Your task to perform on an android device: What's on Reddit today Image 0: 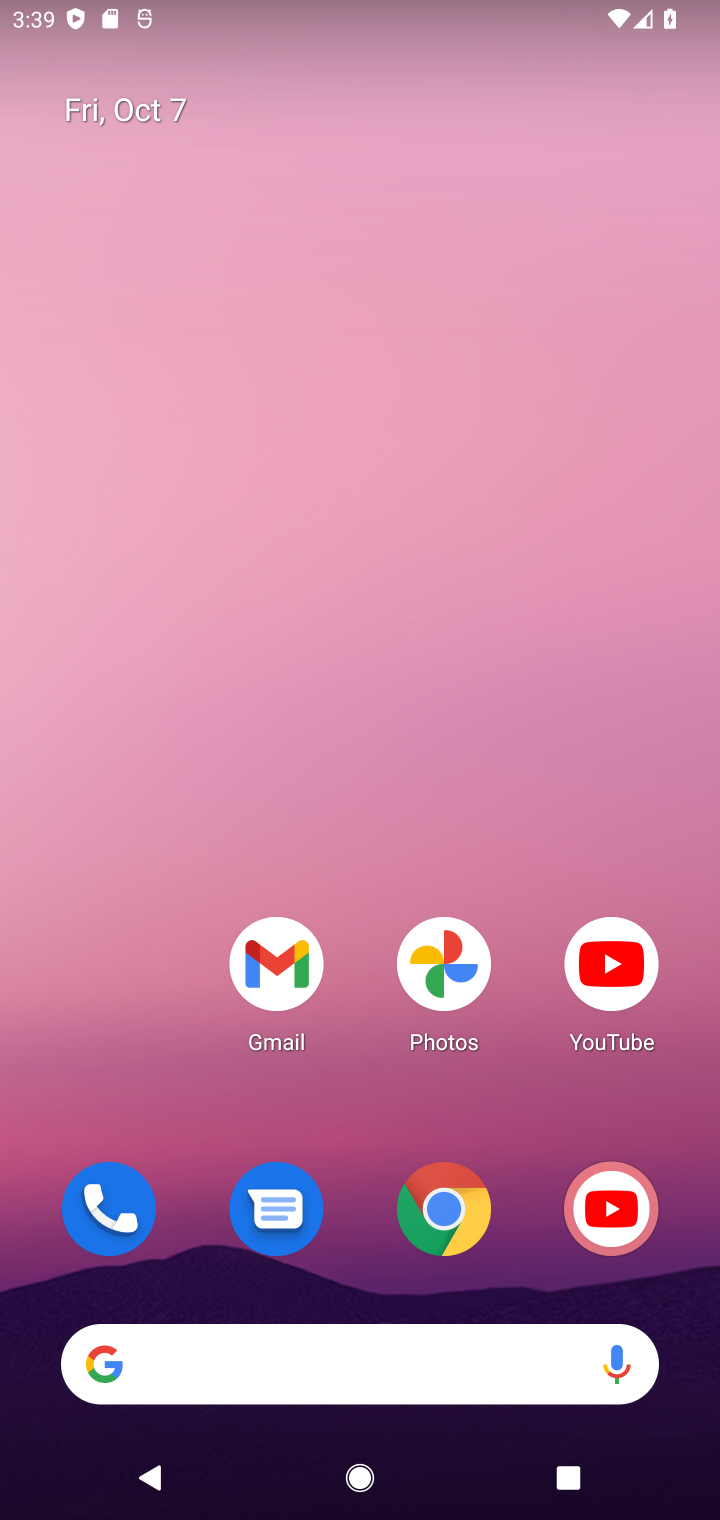
Step 0: press home button
Your task to perform on an android device: What's on Reddit today Image 1: 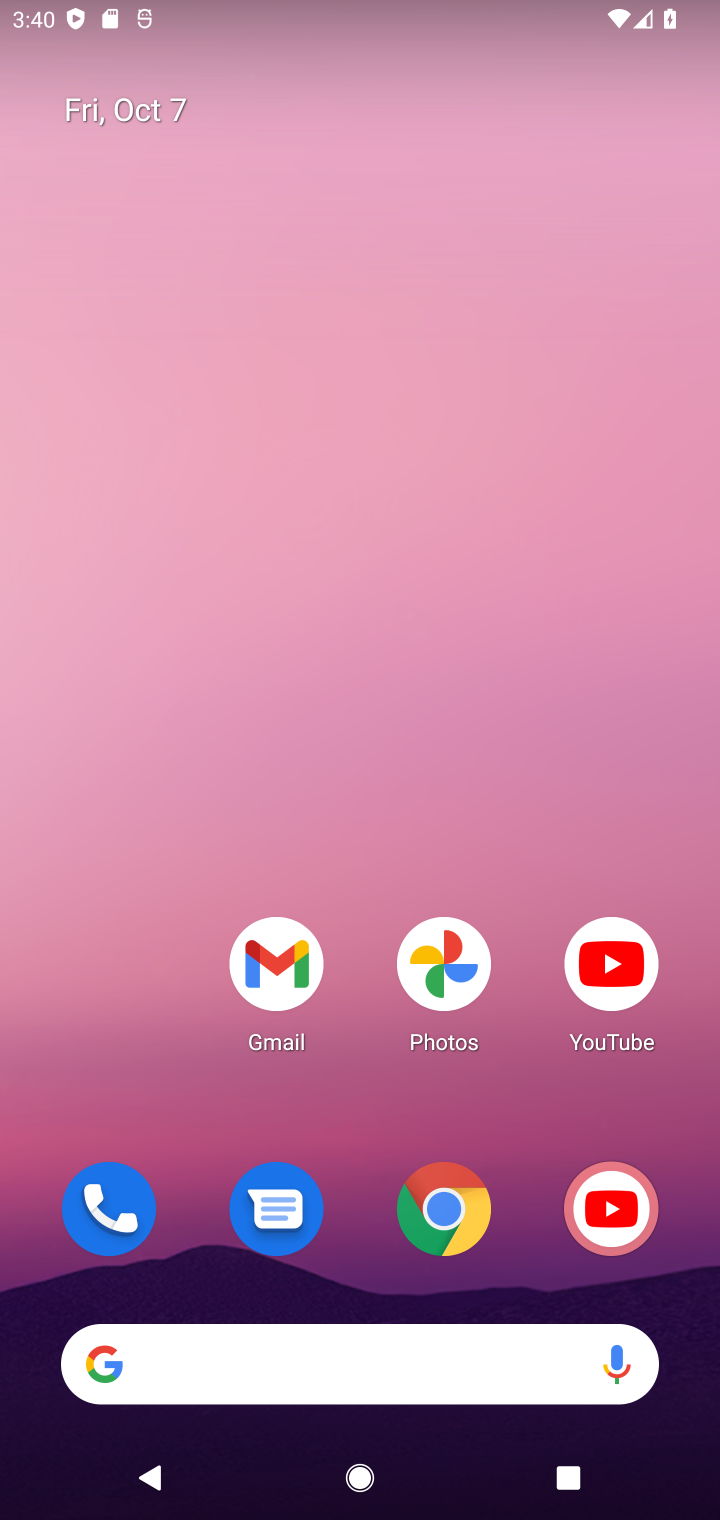
Step 1: click (481, 1356)
Your task to perform on an android device: What's on Reddit today Image 2: 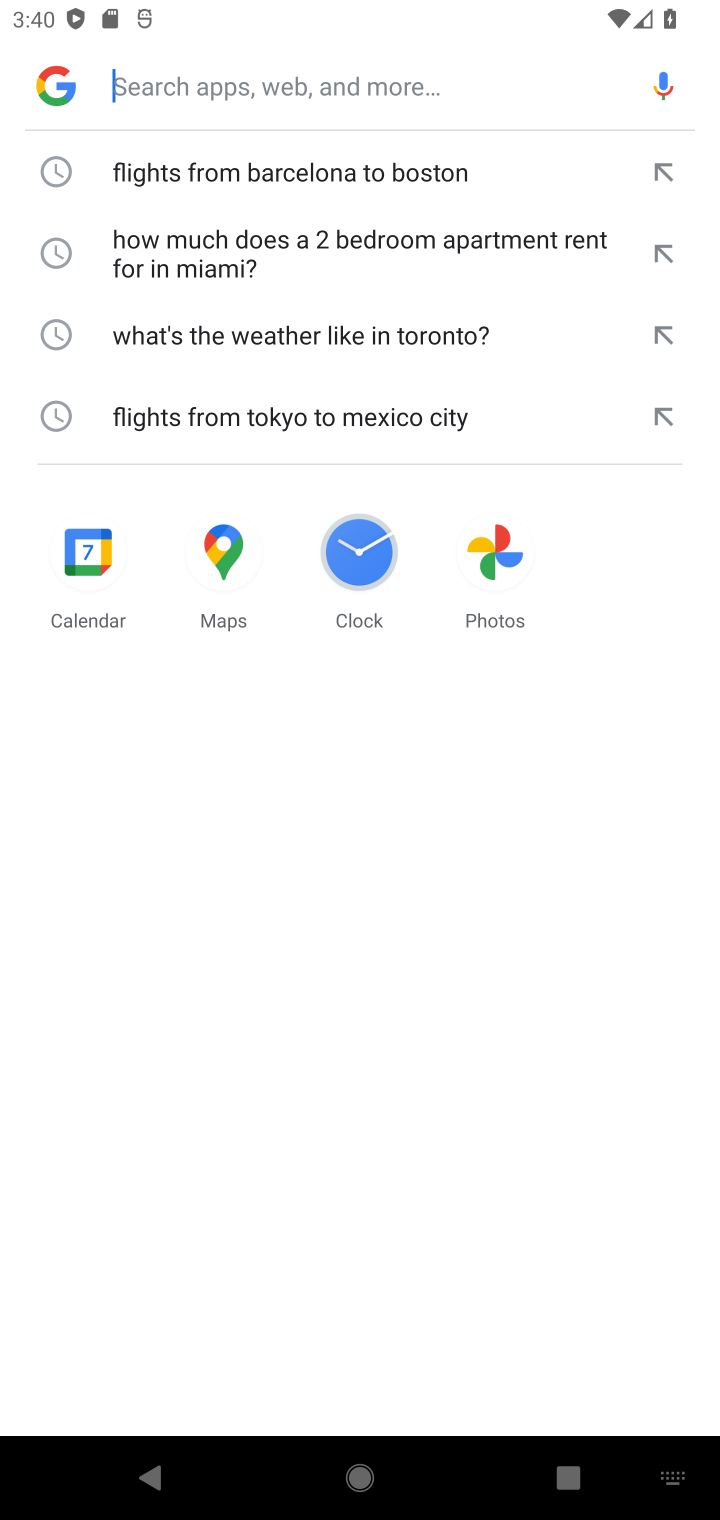
Step 2: type "What's on Reddit today"
Your task to perform on an android device: What's on Reddit today Image 3: 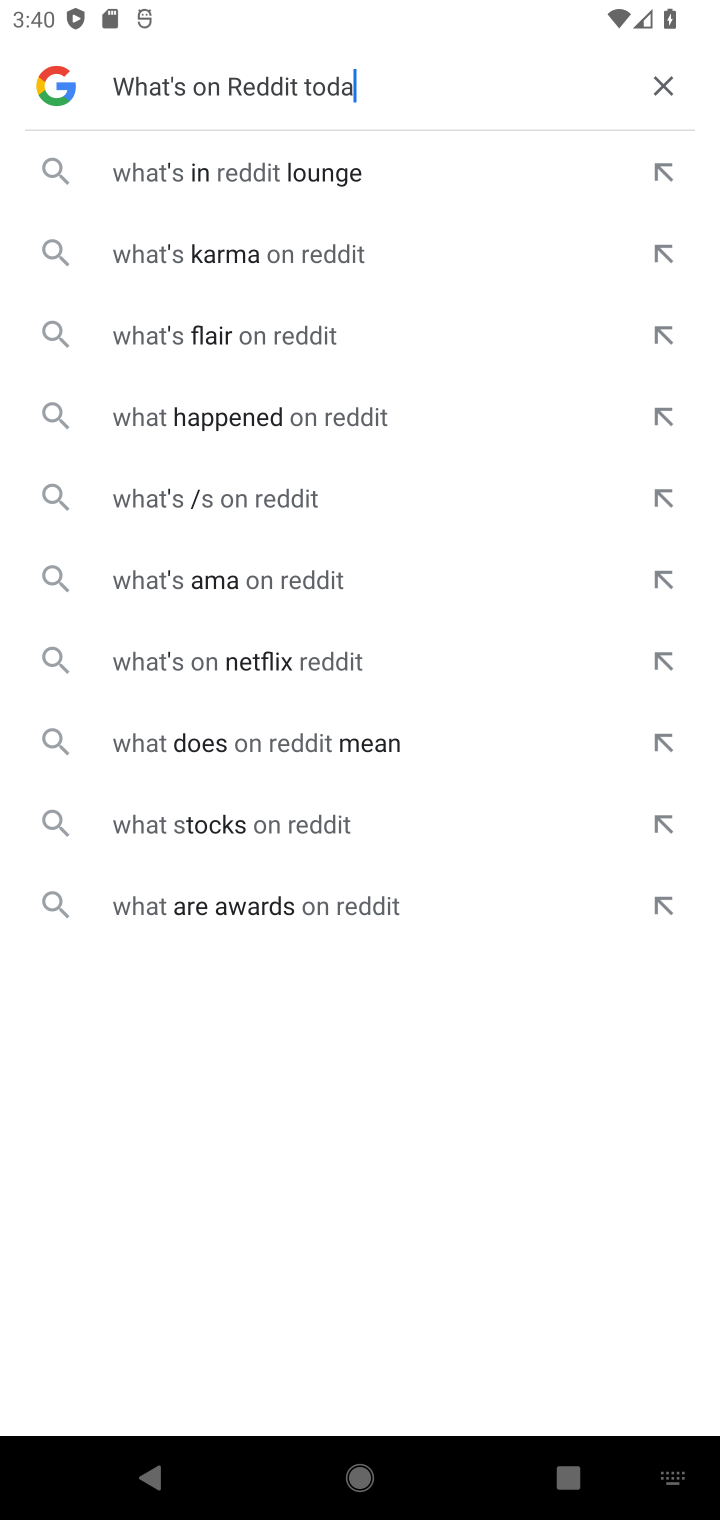
Step 3: press enter
Your task to perform on an android device: What's on Reddit today Image 4: 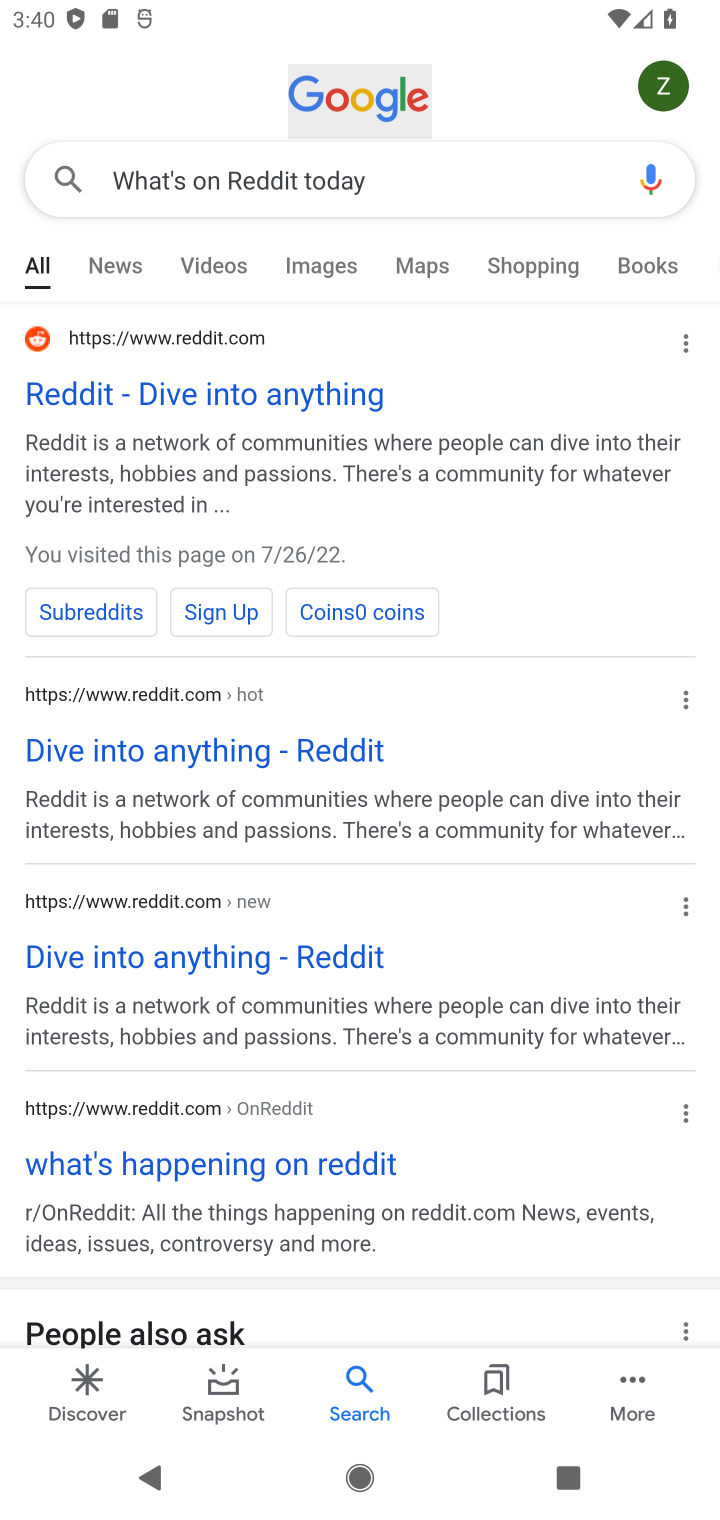
Step 4: click (222, 384)
Your task to perform on an android device: What's on Reddit today Image 5: 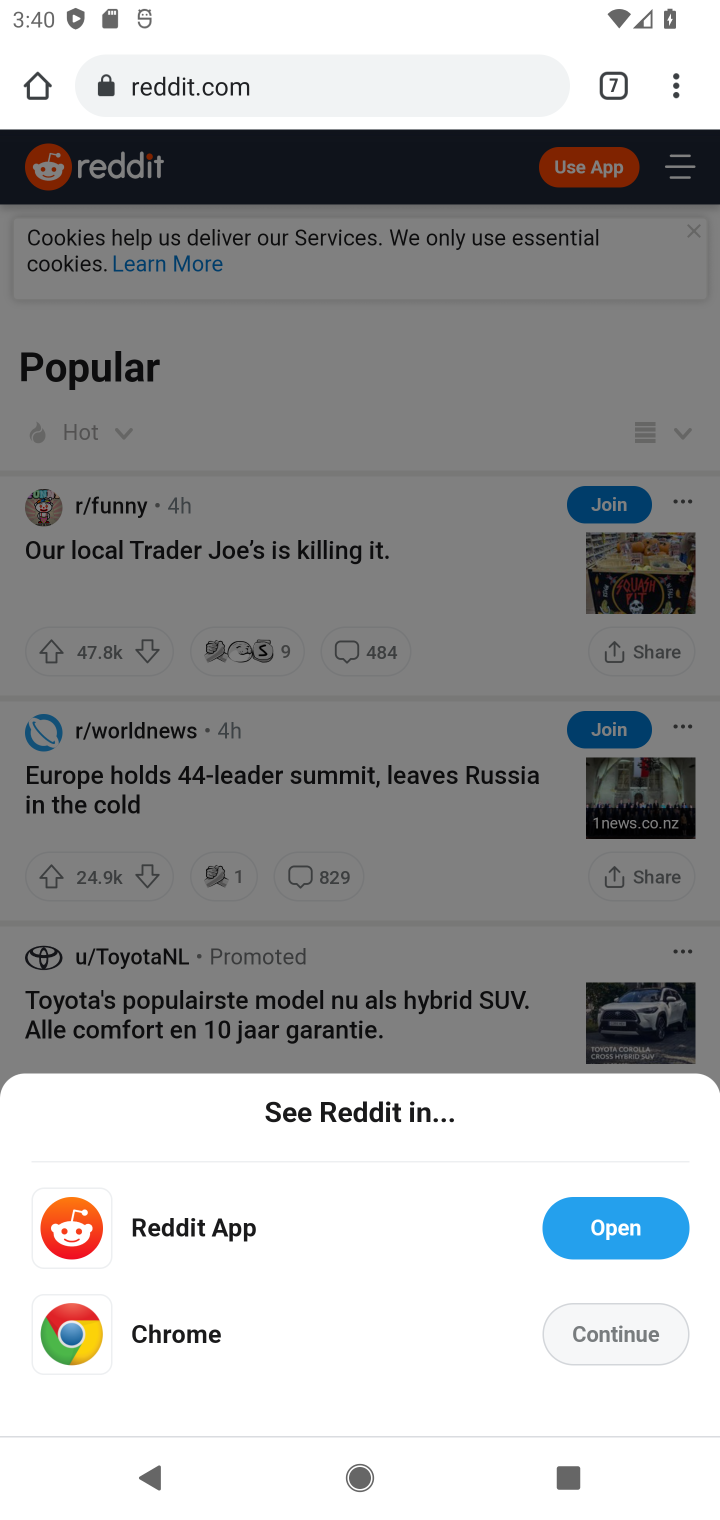
Step 5: click (608, 1337)
Your task to perform on an android device: What's on Reddit today Image 6: 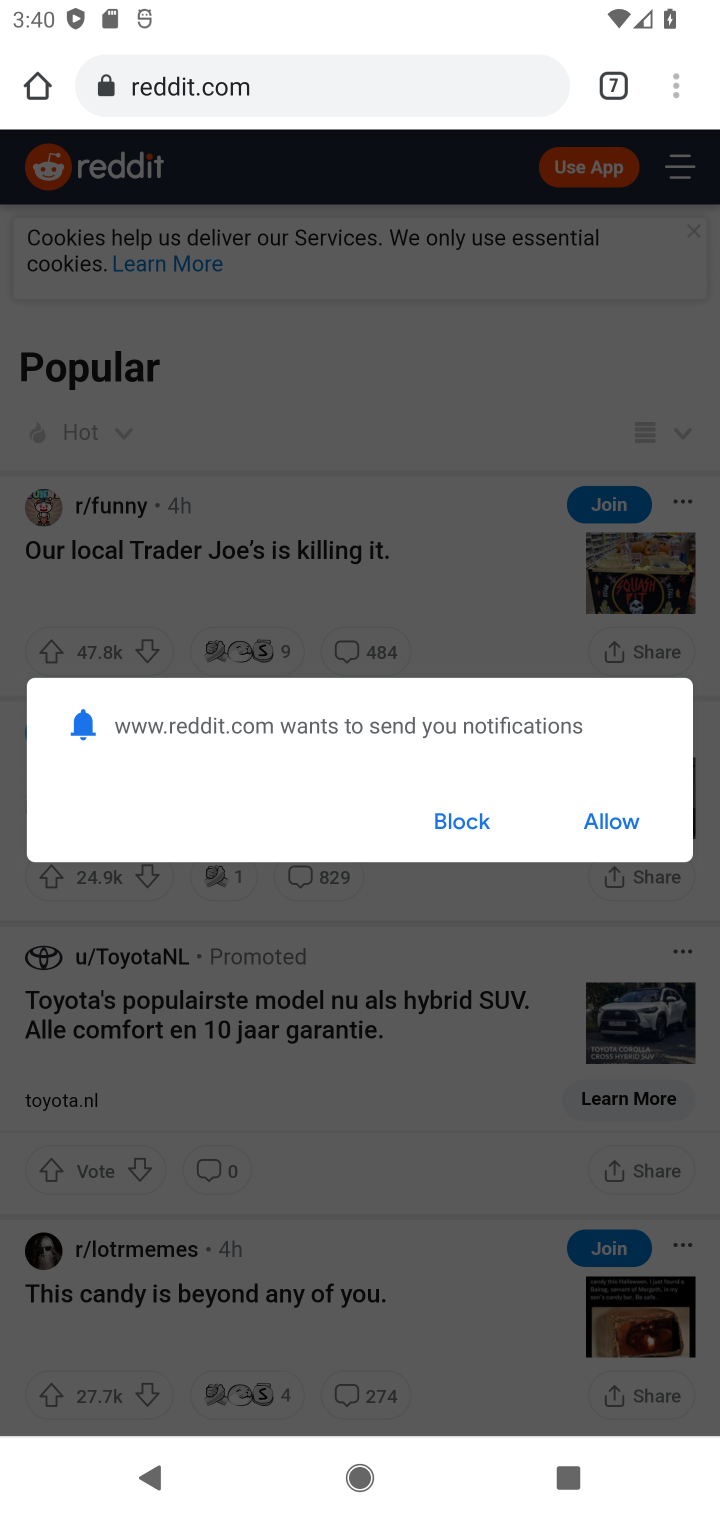
Step 6: click (482, 820)
Your task to perform on an android device: What's on Reddit today Image 7: 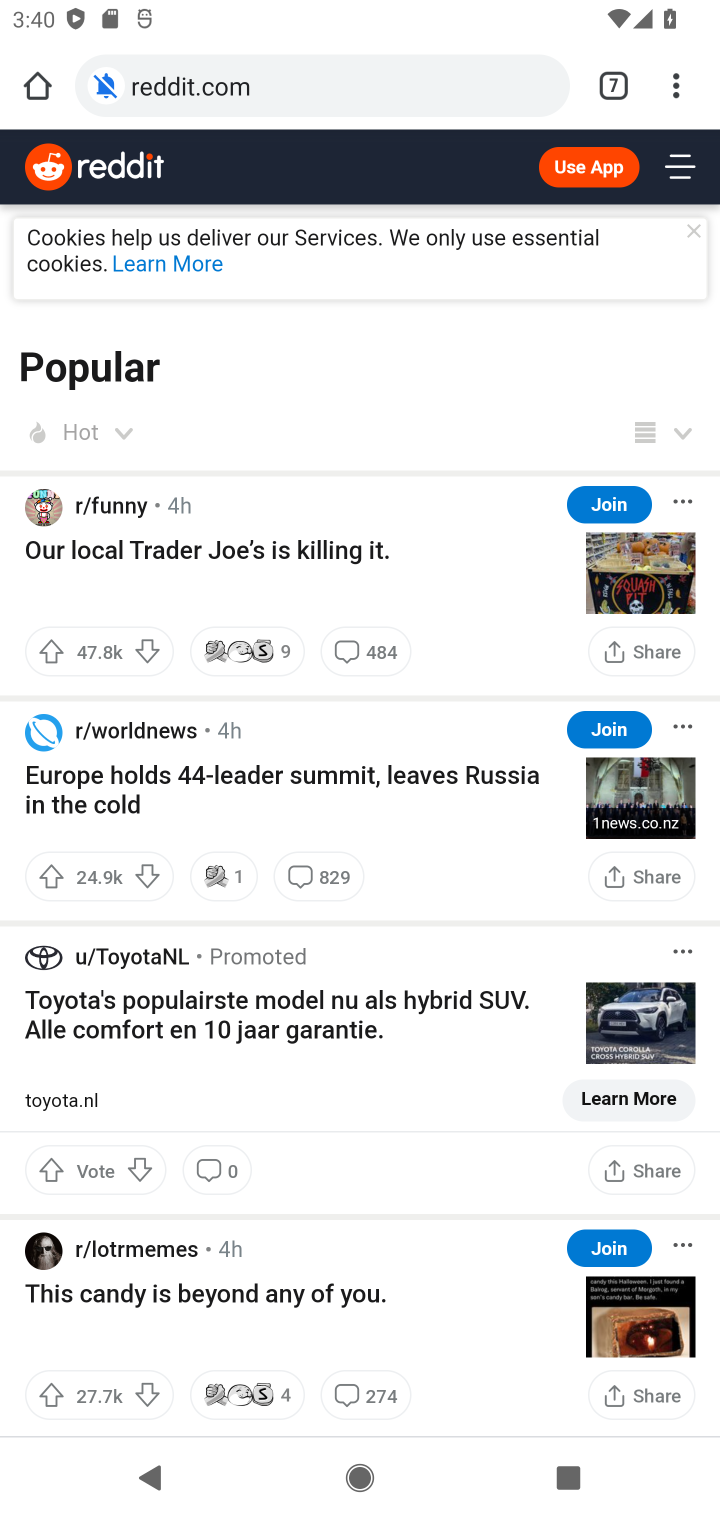
Step 7: task complete